Your task to perform on an android device: Do I have any events tomorrow? Image 0: 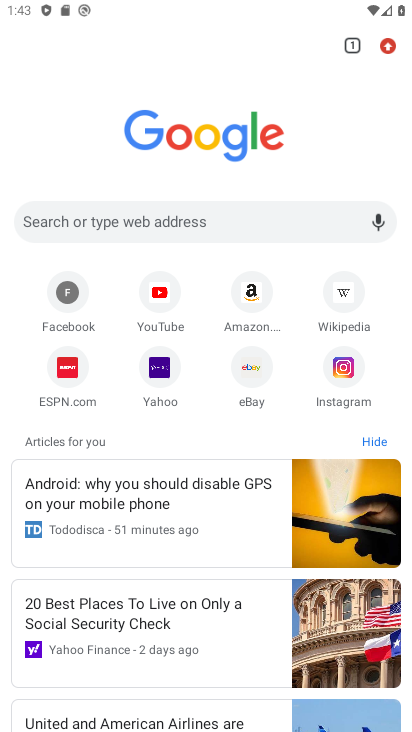
Step 0: press home button
Your task to perform on an android device: Do I have any events tomorrow? Image 1: 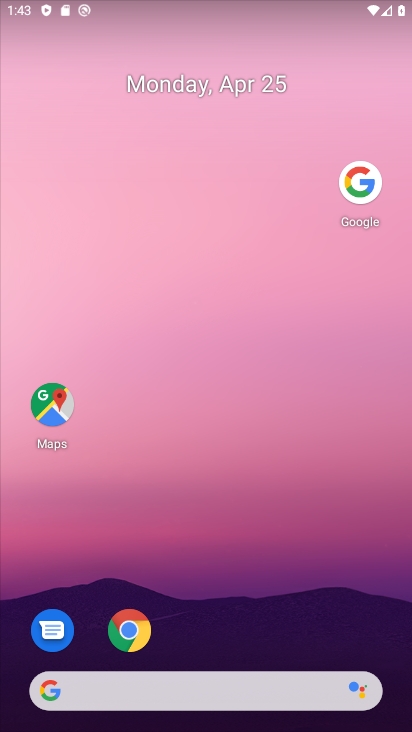
Step 1: drag from (205, 663) to (205, 47)
Your task to perform on an android device: Do I have any events tomorrow? Image 2: 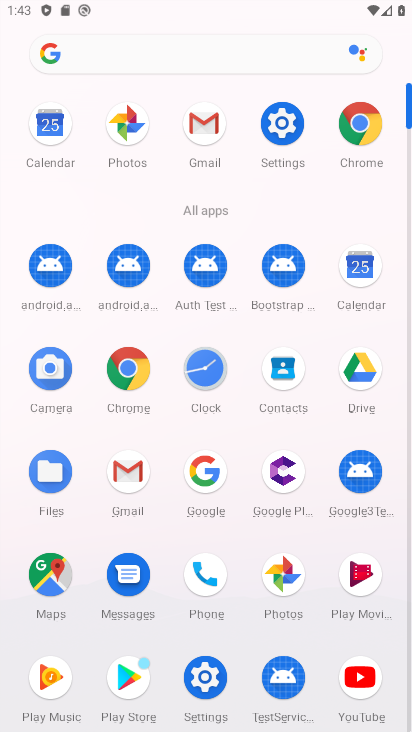
Step 2: click (354, 266)
Your task to perform on an android device: Do I have any events tomorrow? Image 3: 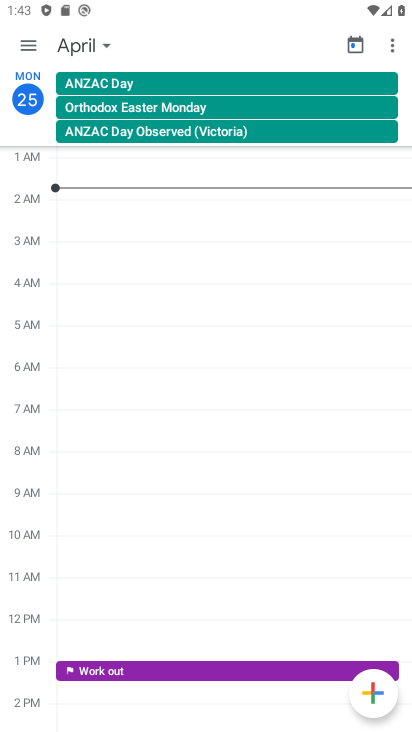
Step 3: click (22, 47)
Your task to perform on an android device: Do I have any events tomorrow? Image 4: 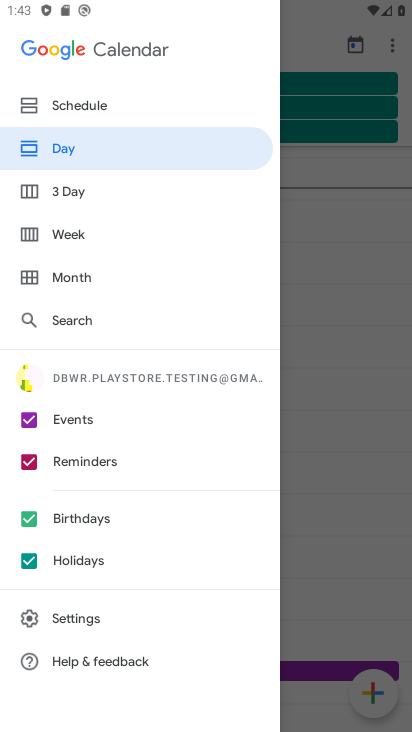
Step 4: click (67, 193)
Your task to perform on an android device: Do I have any events tomorrow? Image 5: 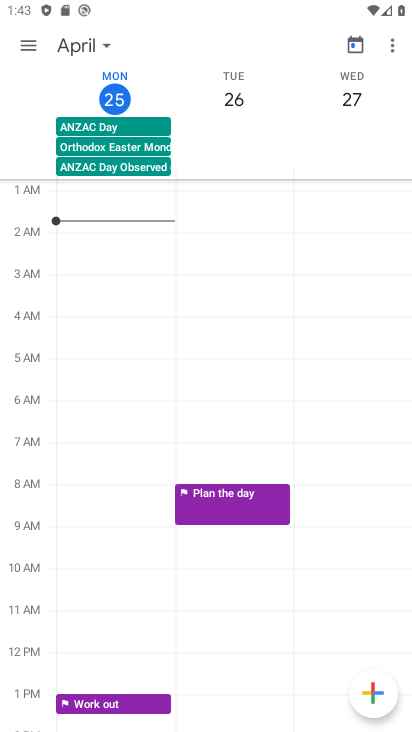
Step 5: click (243, 94)
Your task to perform on an android device: Do I have any events tomorrow? Image 6: 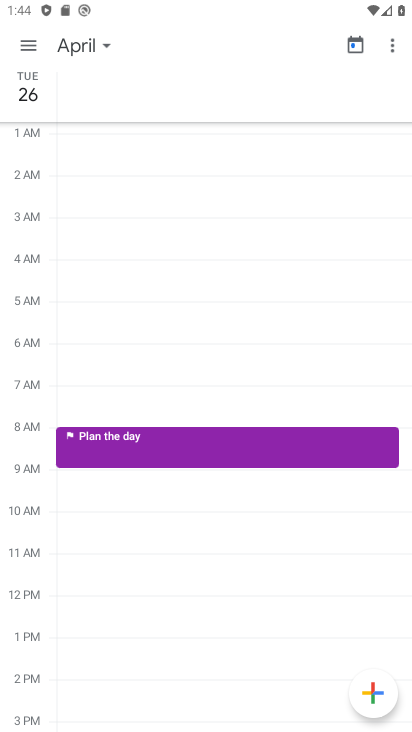
Step 6: task complete